Your task to perform on an android device: Clear the cart on bestbuy.com. Add "bose soundsport free" to the cart on bestbuy.com, then select checkout. Image 0: 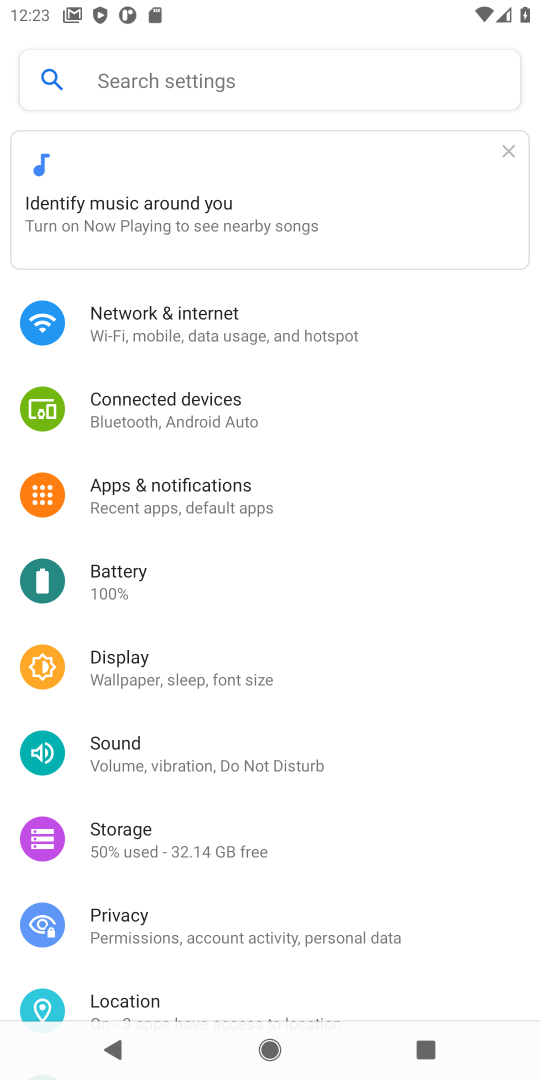
Step 0: press home button
Your task to perform on an android device: Clear the cart on bestbuy.com. Add "bose soundsport free" to the cart on bestbuy.com, then select checkout. Image 1: 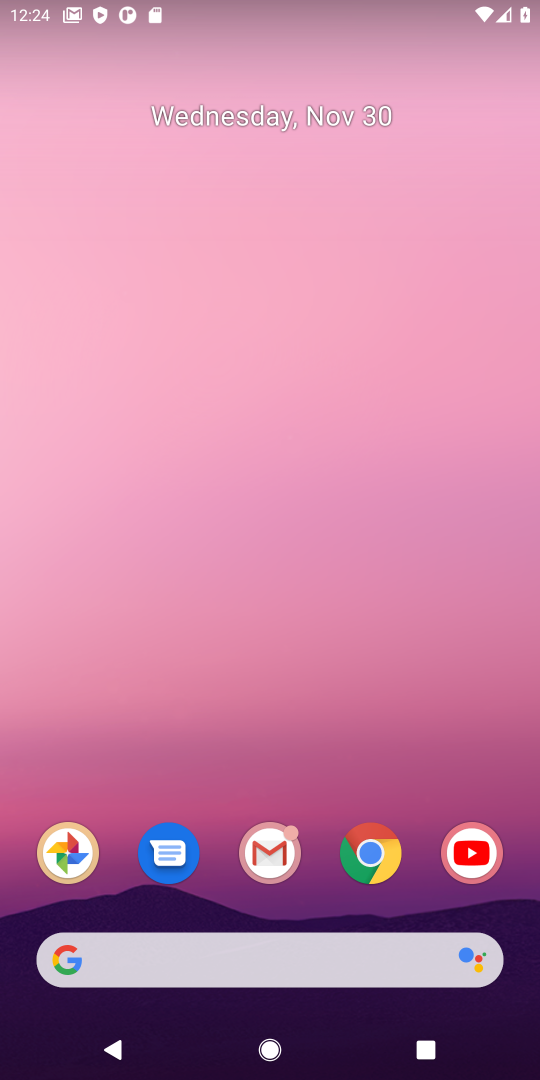
Step 1: click (366, 843)
Your task to perform on an android device: Clear the cart on bestbuy.com. Add "bose soundsport free" to the cart on bestbuy.com, then select checkout. Image 2: 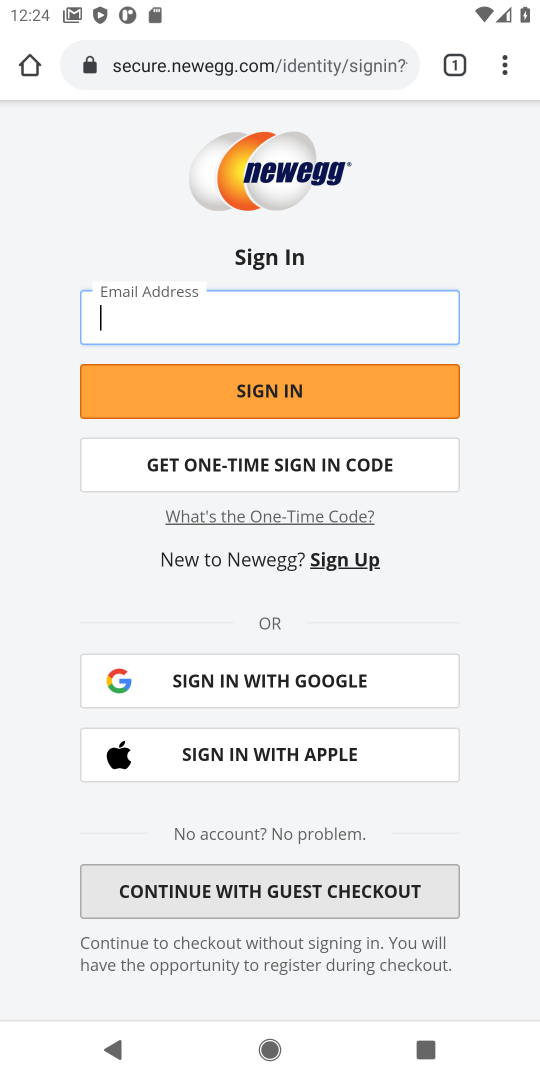
Step 2: click (261, 64)
Your task to perform on an android device: Clear the cart on bestbuy.com. Add "bose soundsport free" to the cart on bestbuy.com, then select checkout. Image 3: 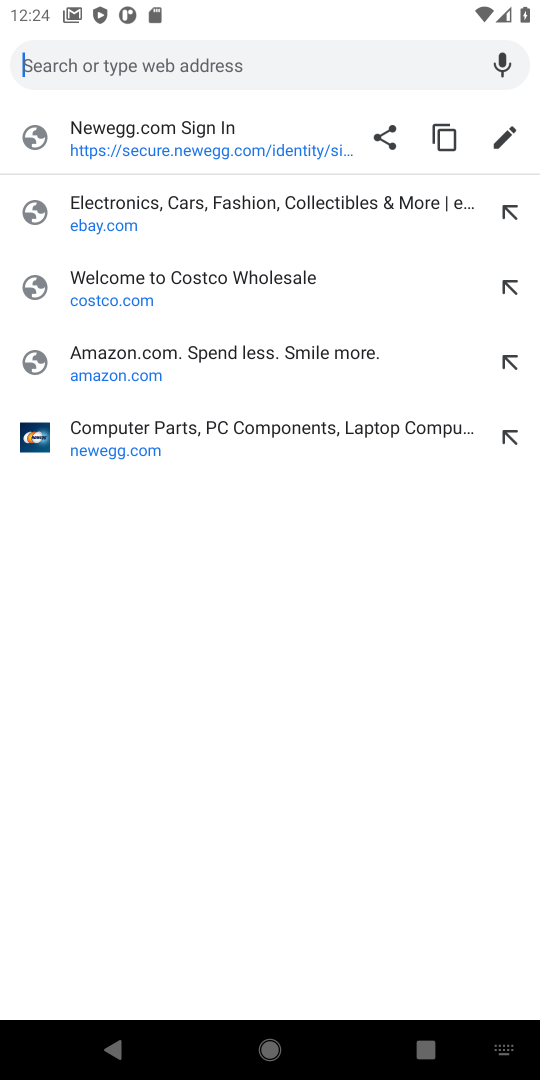
Step 3: type "bestbuy.com"
Your task to perform on an android device: Clear the cart on bestbuy.com. Add "bose soundsport free" to the cart on bestbuy.com, then select checkout. Image 4: 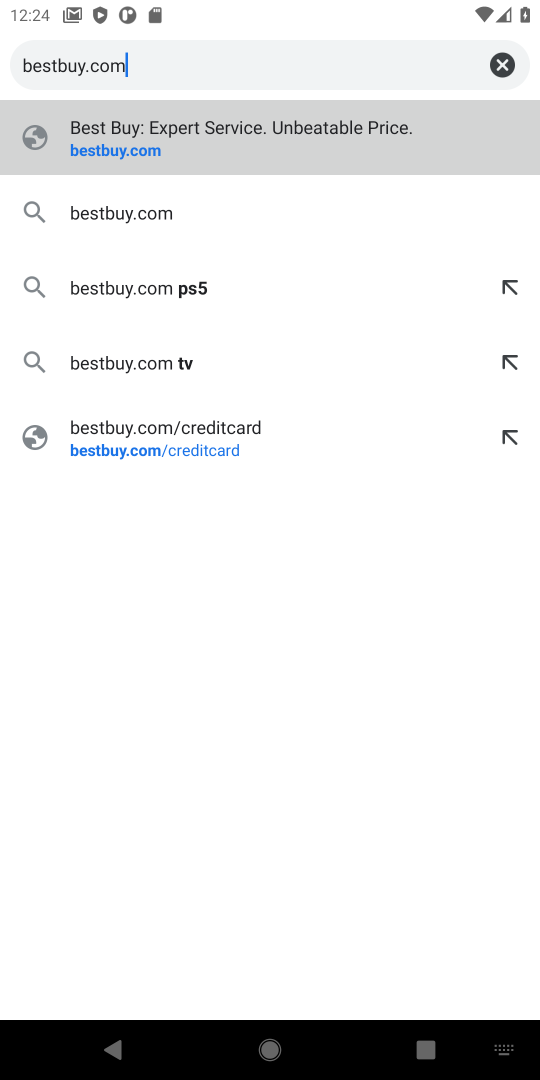
Step 4: click (155, 146)
Your task to perform on an android device: Clear the cart on bestbuy.com. Add "bose soundsport free" to the cart on bestbuy.com, then select checkout. Image 5: 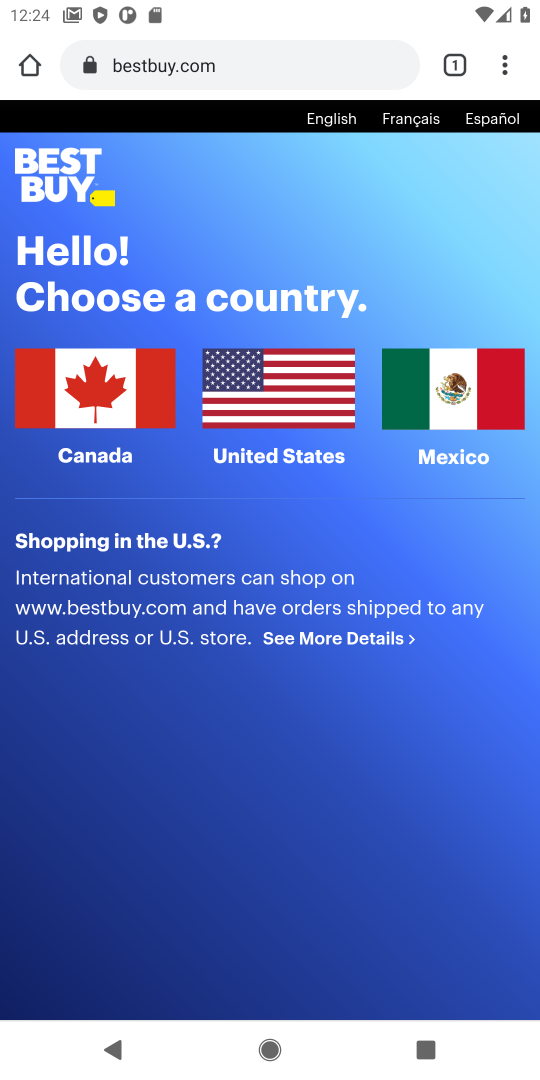
Step 5: click (295, 391)
Your task to perform on an android device: Clear the cart on bestbuy.com. Add "bose soundsport free" to the cart on bestbuy.com, then select checkout. Image 6: 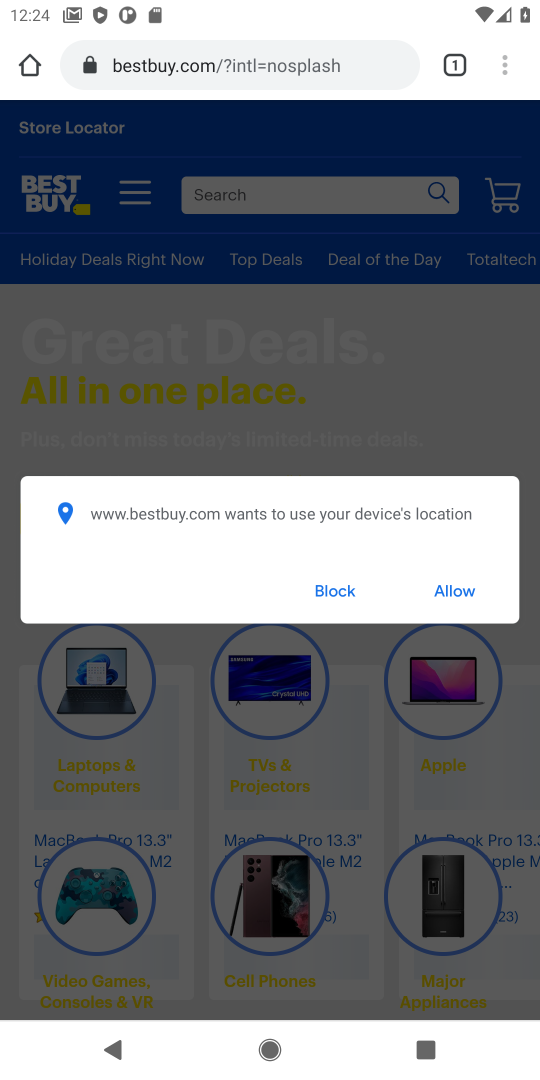
Step 6: click (329, 588)
Your task to perform on an android device: Clear the cart on bestbuy.com. Add "bose soundsport free" to the cart on bestbuy.com, then select checkout. Image 7: 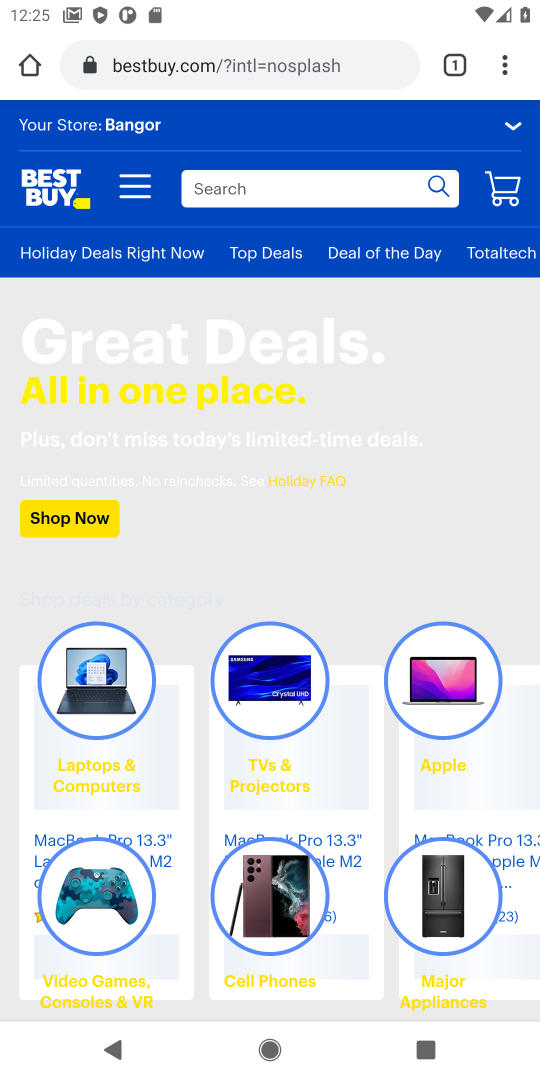
Step 7: click (502, 194)
Your task to perform on an android device: Clear the cart on bestbuy.com. Add "bose soundsport free" to the cart on bestbuy.com, then select checkout. Image 8: 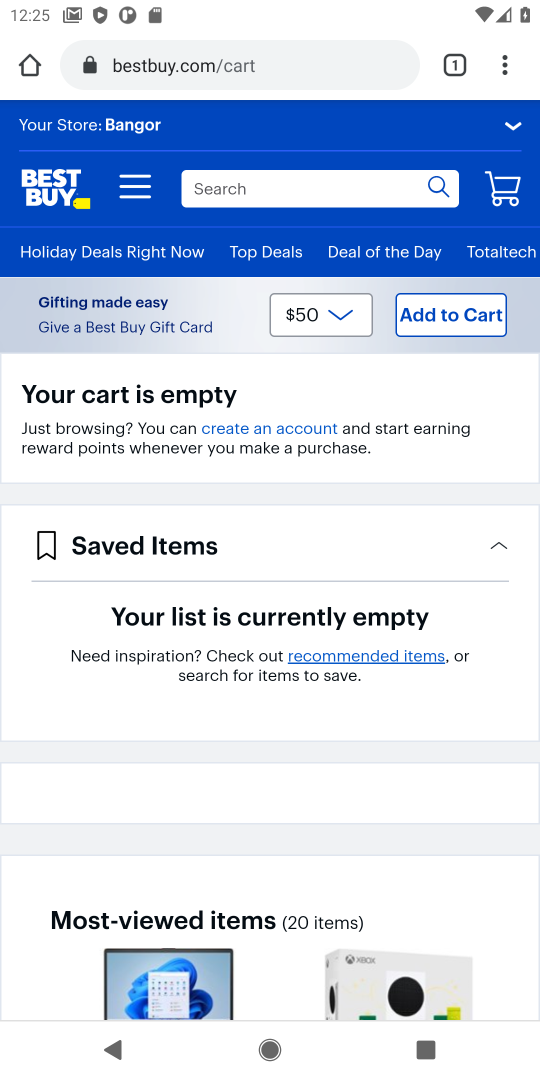
Step 8: click (211, 190)
Your task to perform on an android device: Clear the cart on bestbuy.com. Add "bose soundsport free" to the cart on bestbuy.com, then select checkout. Image 9: 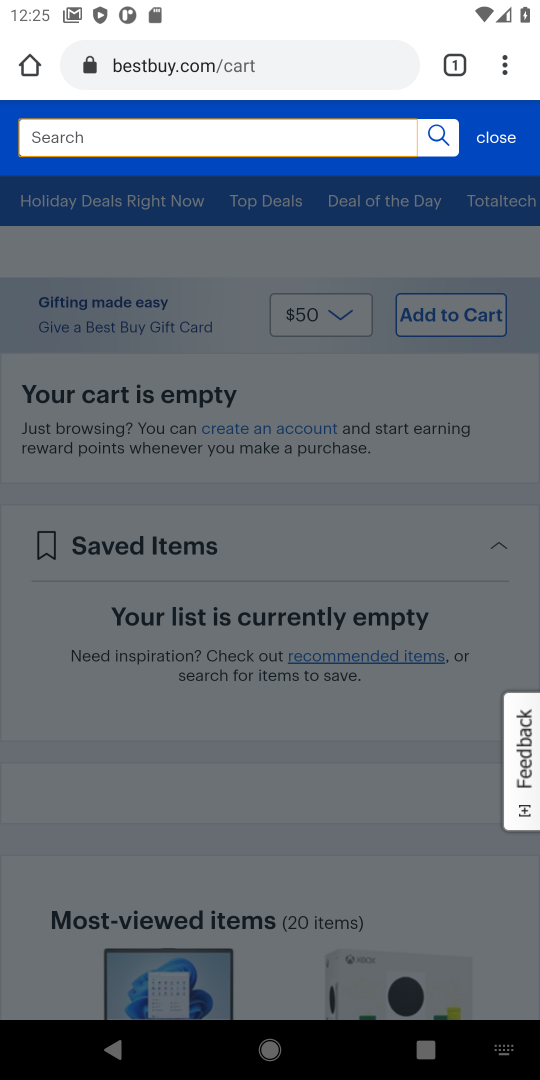
Step 9: type "bose soundsport free"
Your task to perform on an android device: Clear the cart on bestbuy.com. Add "bose soundsport free" to the cart on bestbuy.com, then select checkout. Image 10: 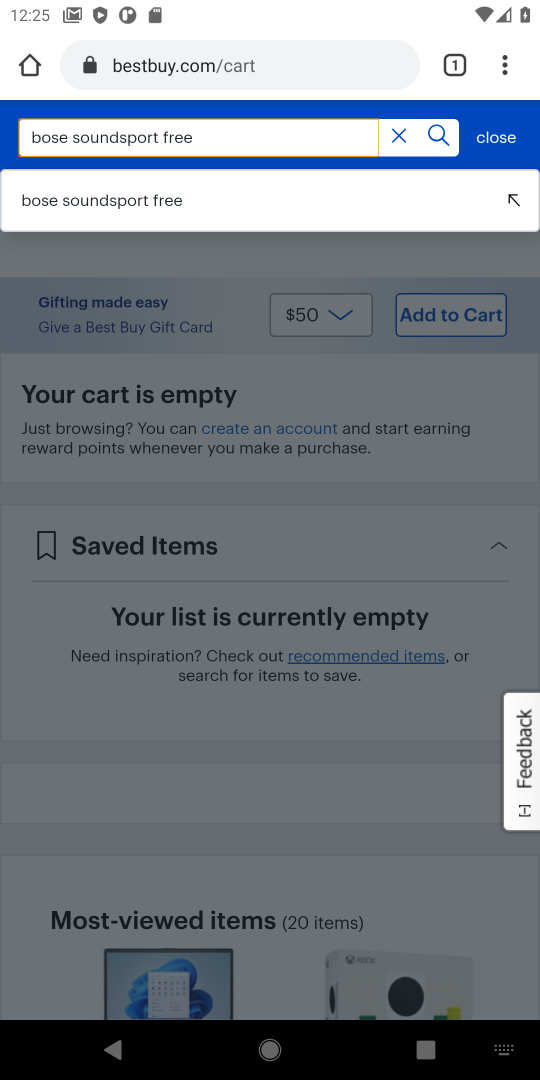
Step 10: click (129, 207)
Your task to perform on an android device: Clear the cart on bestbuy.com. Add "bose soundsport free" to the cart on bestbuy.com, then select checkout. Image 11: 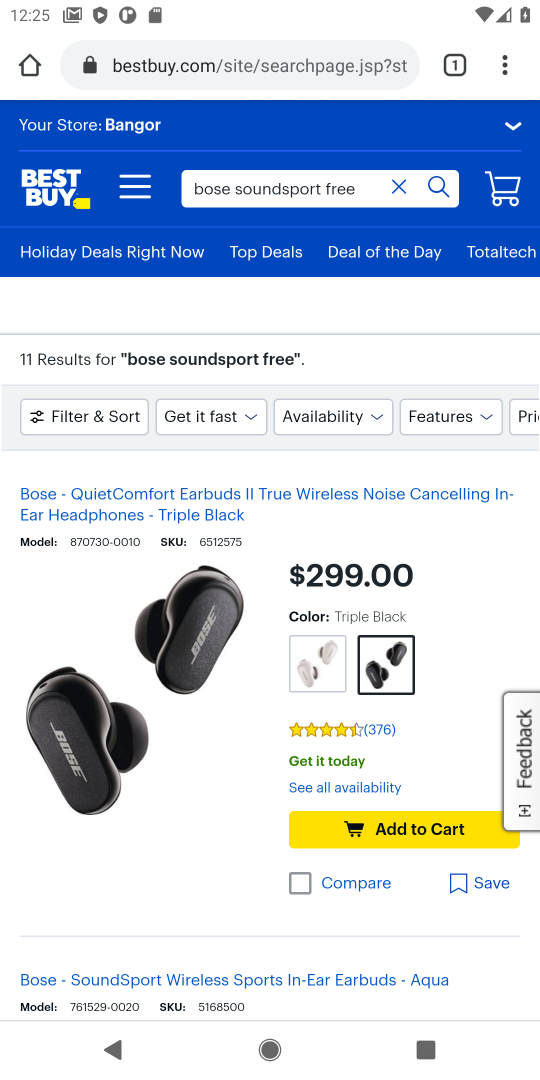
Step 11: drag from (199, 728) to (215, 303)
Your task to perform on an android device: Clear the cart on bestbuy.com. Add "bose soundsport free" to the cart on bestbuy.com, then select checkout. Image 12: 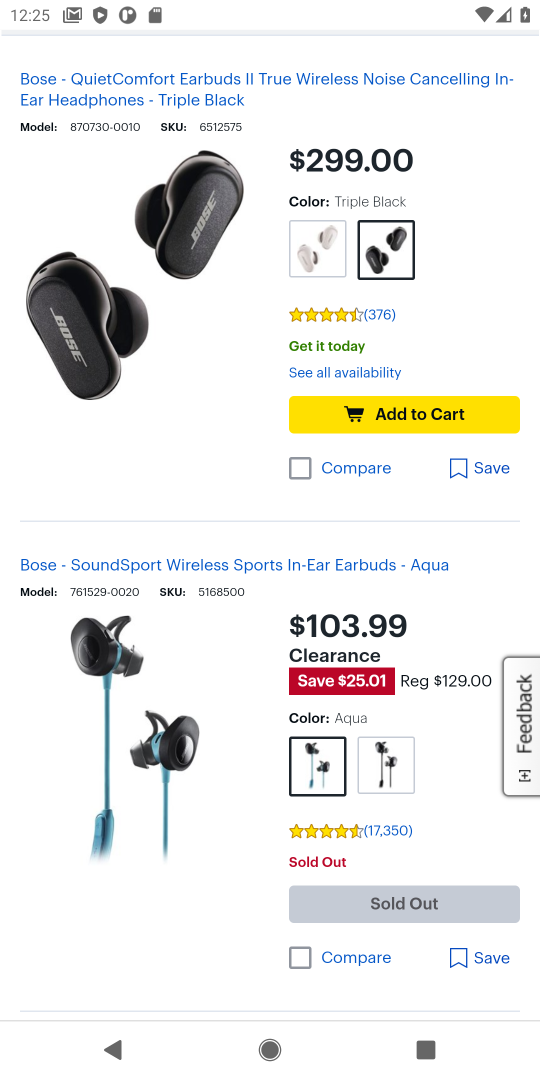
Step 12: drag from (172, 782) to (213, 374)
Your task to perform on an android device: Clear the cart on bestbuy.com. Add "bose soundsport free" to the cart on bestbuy.com, then select checkout. Image 13: 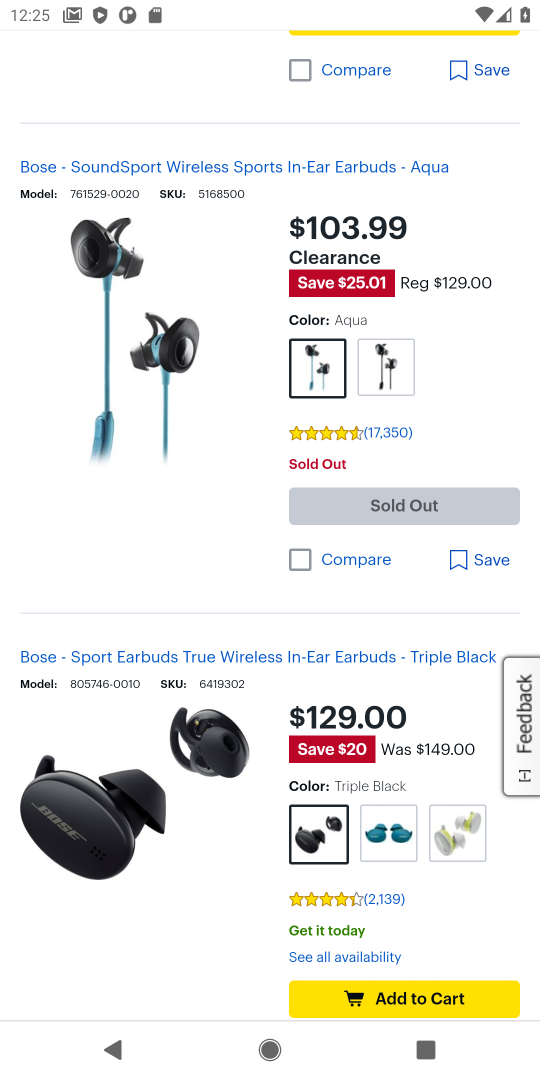
Step 13: drag from (167, 828) to (186, 472)
Your task to perform on an android device: Clear the cart on bestbuy.com. Add "bose soundsport free" to the cart on bestbuy.com, then select checkout. Image 14: 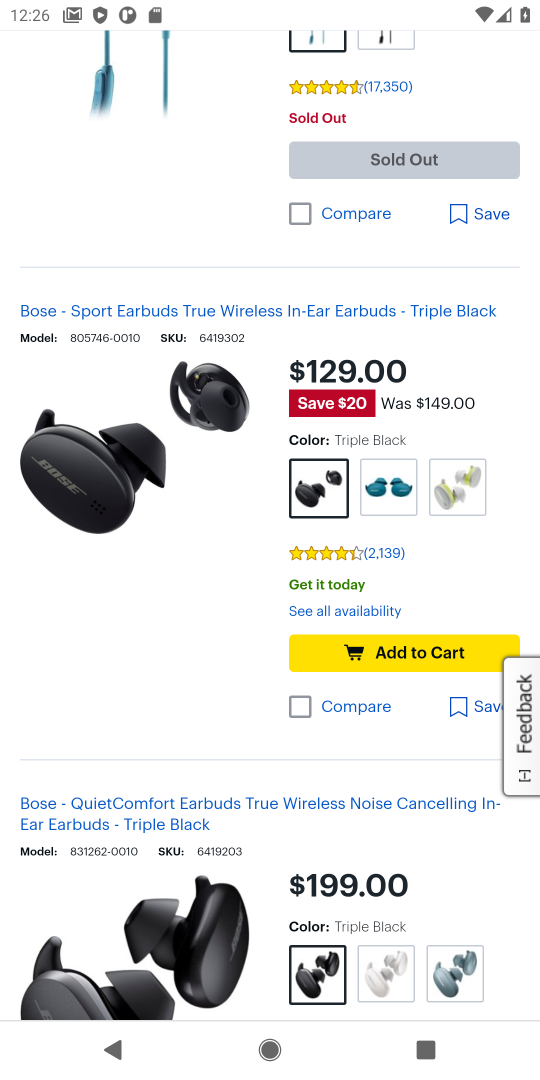
Step 14: drag from (181, 670) to (196, 372)
Your task to perform on an android device: Clear the cart on bestbuy.com. Add "bose soundsport free" to the cart on bestbuy.com, then select checkout. Image 15: 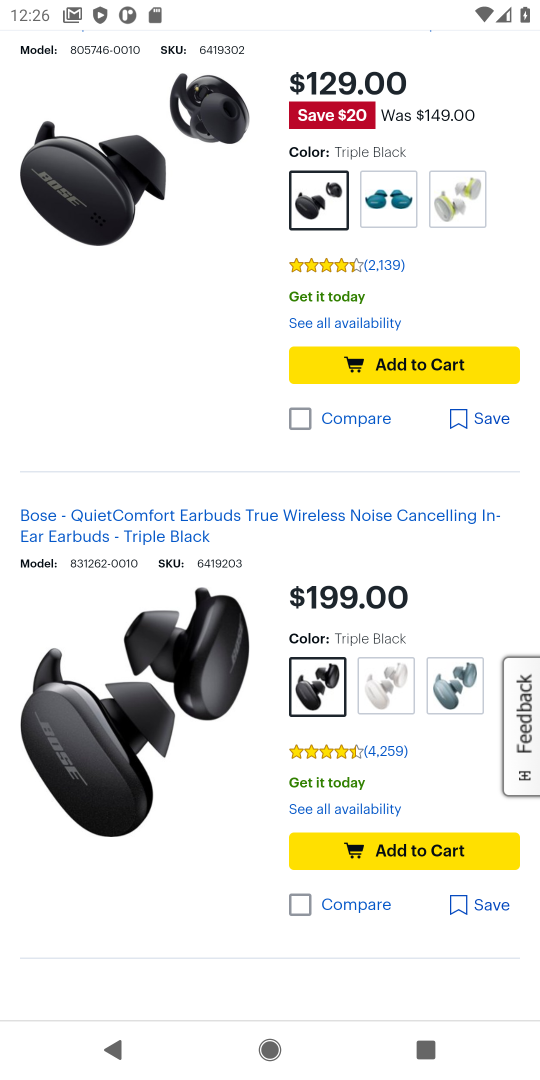
Step 15: drag from (171, 694) to (183, 354)
Your task to perform on an android device: Clear the cart on bestbuy.com. Add "bose soundsport free" to the cart on bestbuy.com, then select checkout. Image 16: 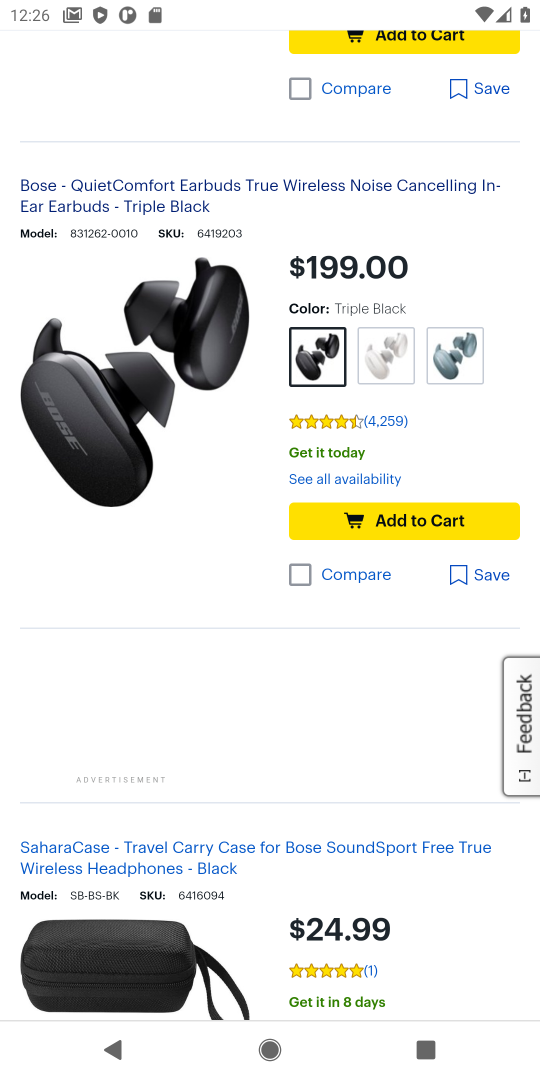
Step 16: drag from (183, 671) to (202, 411)
Your task to perform on an android device: Clear the cart on bestbuy.com. Add "bose soundsport free" to the cart on bestbuy.com, then select checkout. Image 17: 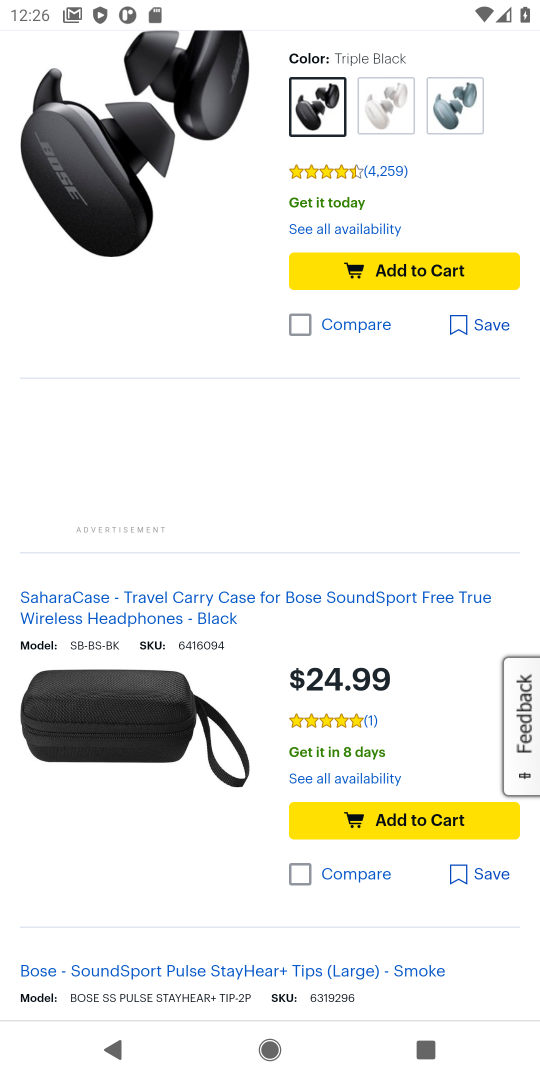
Step 17: click (394, 824)
Your task to perform on an android device: Clear the cart on bestbuy.com. Add "bose soundsport free" to the cart on bestbuy.com, then select checkout. Image 18: 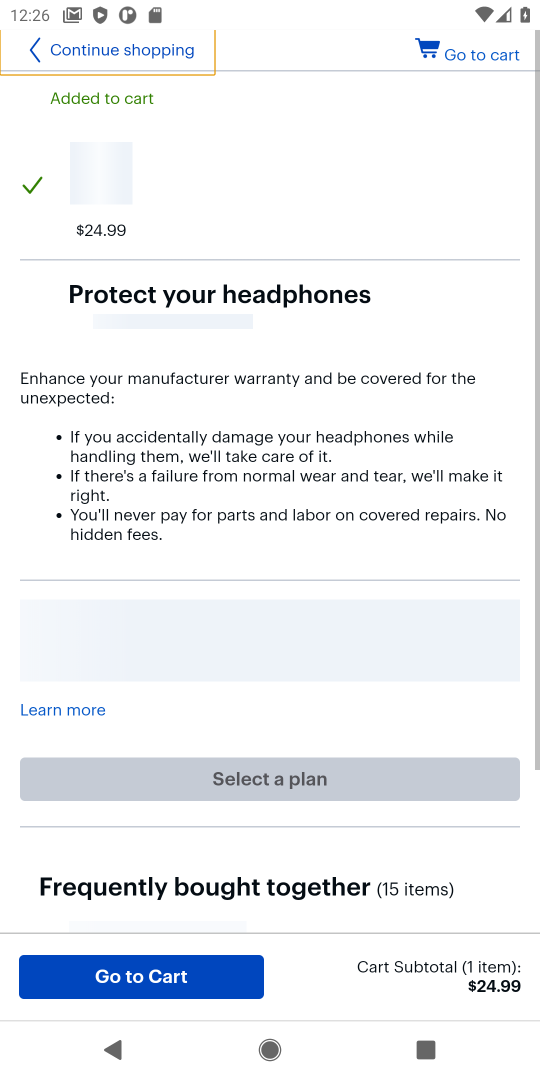
Step 18: click (490, 60)
Your task to perform on an android device: Clear the cart on bestbuy.com. Add "bose soundsport free" to the cart on bestbuy.com, then select checkout. Image 19: 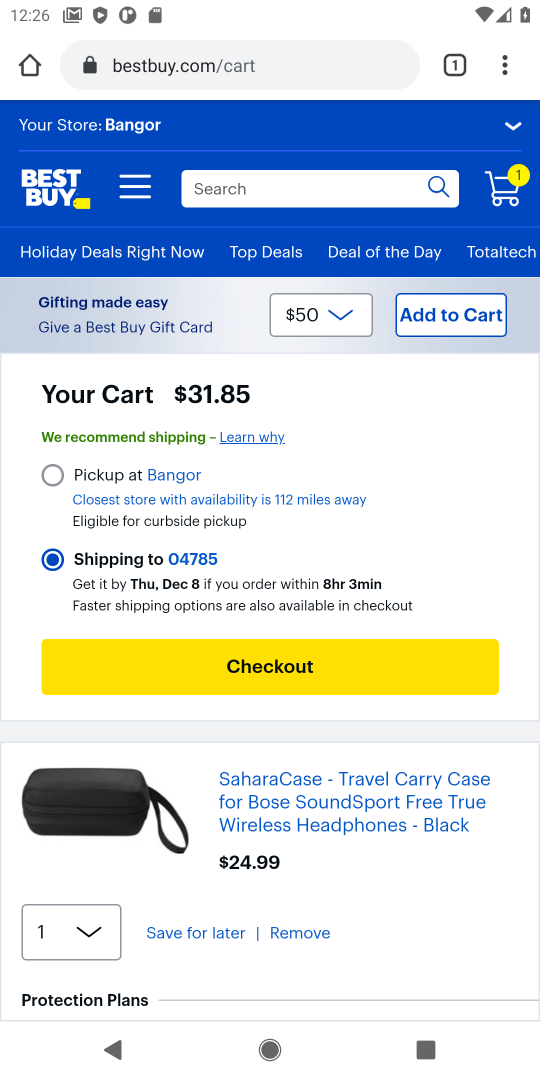
Step 19: click (266, 663)
Your task to perform on an android device: Clear the cart on bestbuy.com. Add "bose soundsport free" to the cart on bestbuy.com, then select checkout. Image 20: 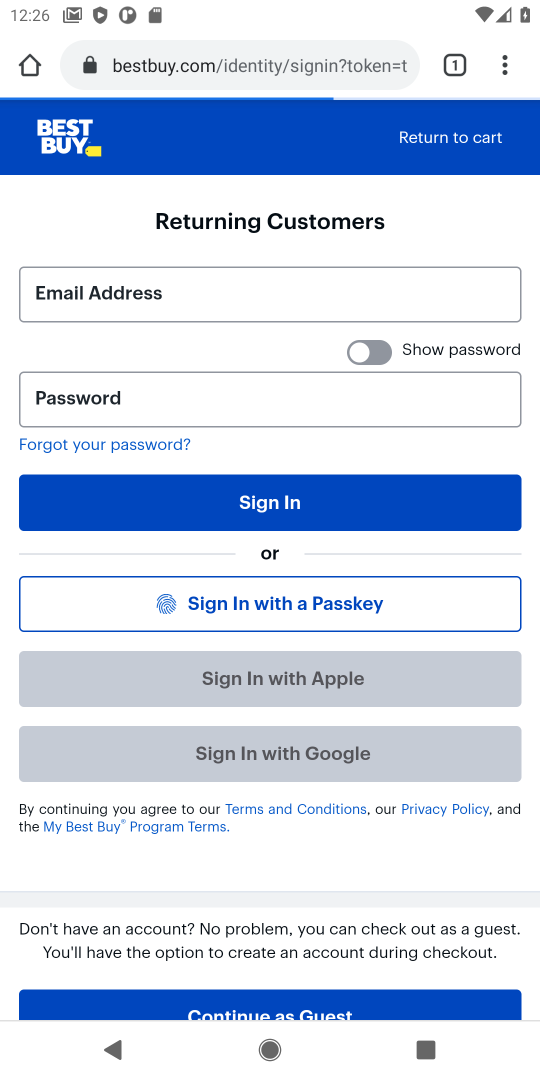
Step 20: task complete